Your task to perform on an android device: Open internet settings Image 0: 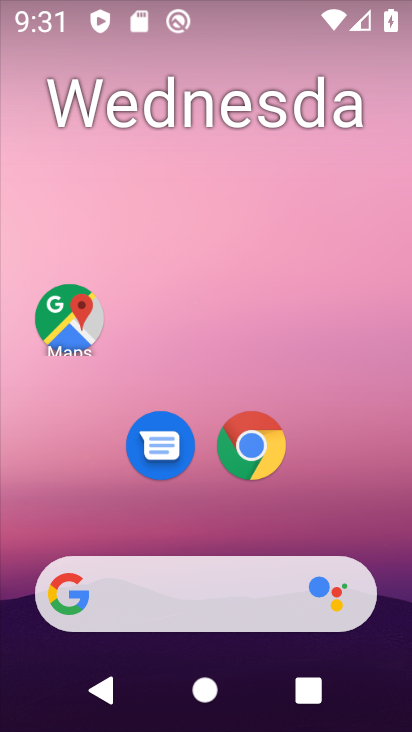
Step 0: drag from (182, 550) to (273, 4)
Your task to perform on an android device: Open internet settings Image 1: 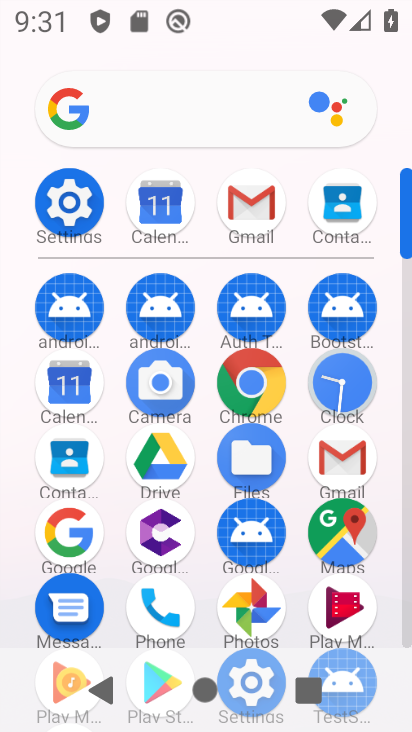
Step 1: click (70, 205)
Your task to perform on an android device: Open internet settings Image 2: 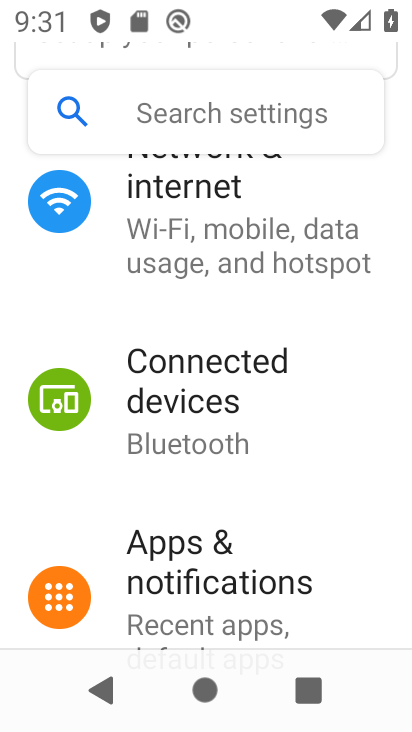
Step 2: click (257, 231)
Your task to perform on an android device: Open internet settings Image 3: 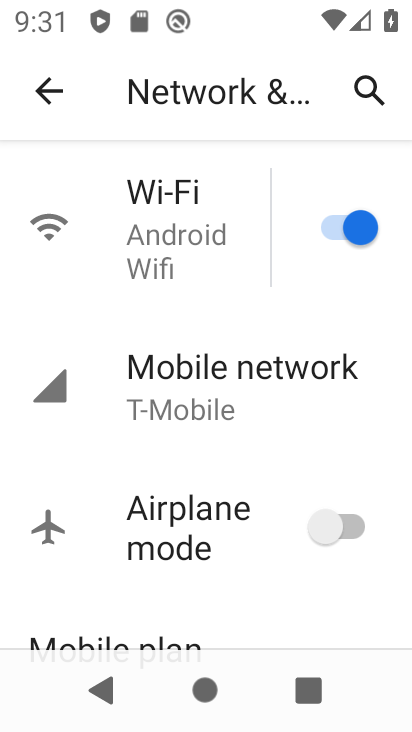
Step 3: task complete